Your task to perform on an android device: move an email to a new category in the gmail app Image 0: 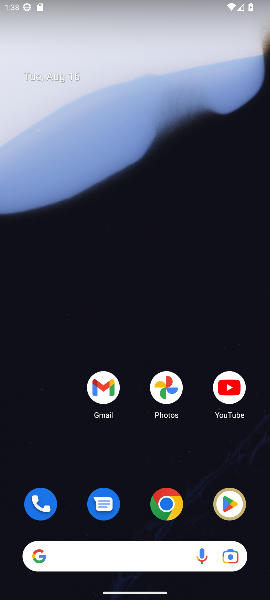
Step 0: click (103, 385)
Your task to perform on an android device: move an email to a new category in the gmail app Image 1: 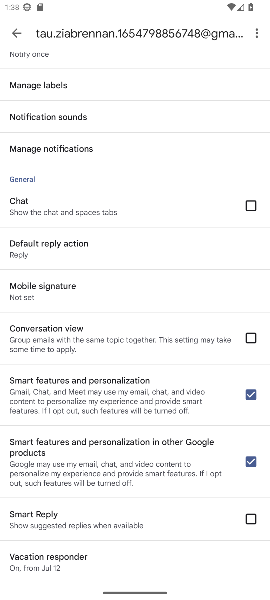
Step 1: click (18, 36)
Your task to perform on an android device: move an email to a new category in the gmail app Image 2: 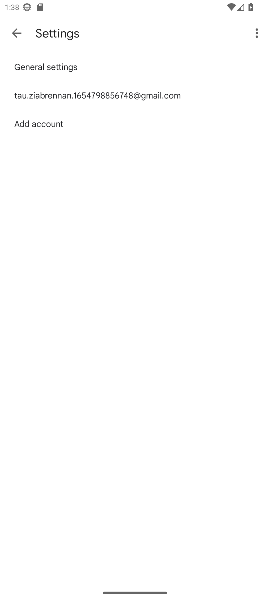
Step 2: click (18, 36)
Your task to perform on an android device: move an email to a new category in the gmail app Image 3: 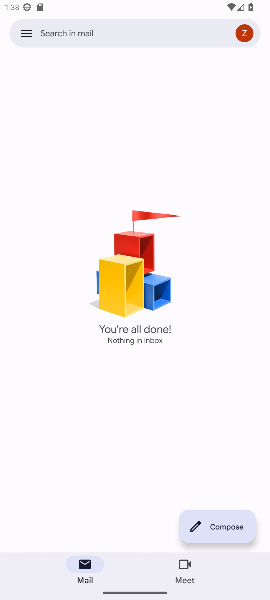
Step 3: click (24, 30)
Your task to perform on an android device: move an email to a new category in the gmail app Image 4: 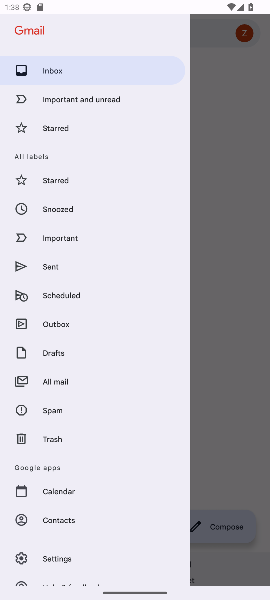
Step 4: click (52, 380)
Your task to perform on an android device: move an email to a new category in the gmail app Image 5: 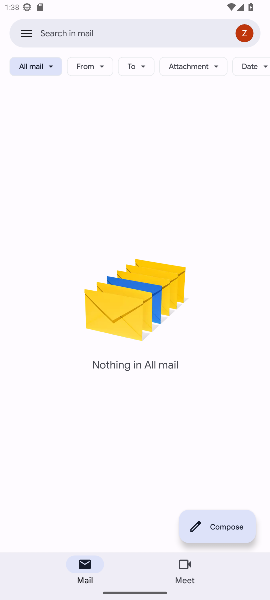
Step 5: task complete